Your task to perform on an android device: Clear the cart on bestbuy.com. Search for panasonic triple a on bestbuy.com, select the first entry, add it to the cart, then select checkout. Image 0: 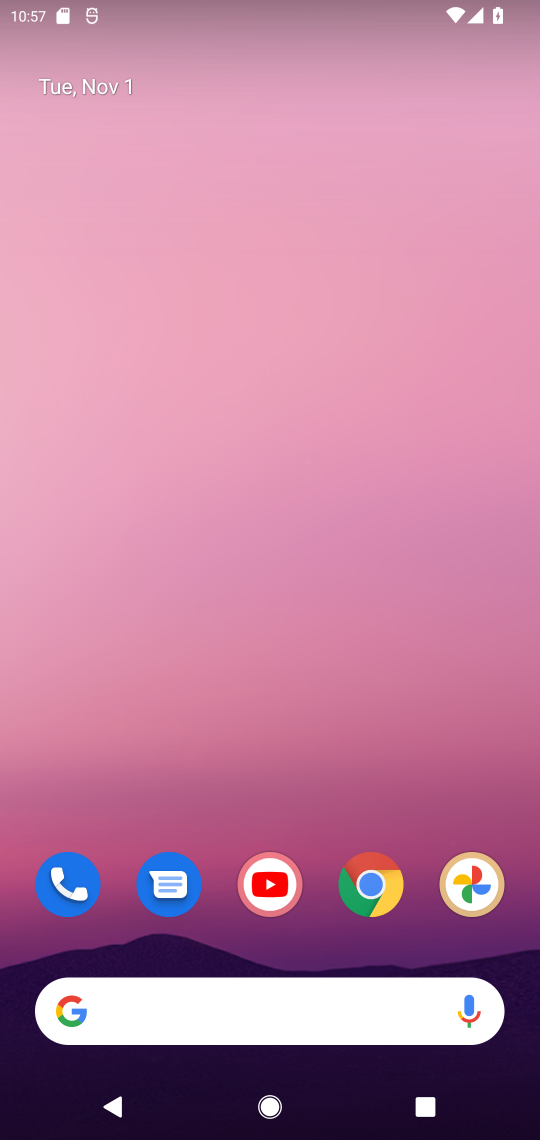
Step 0: click (388, 877)
Your task to perform on an android device: Clear the cart on bestbuy.com. Search for panasonic triple a on bestbuy.com, select the first entry, add it to the cart, then select checkout. Image 1: 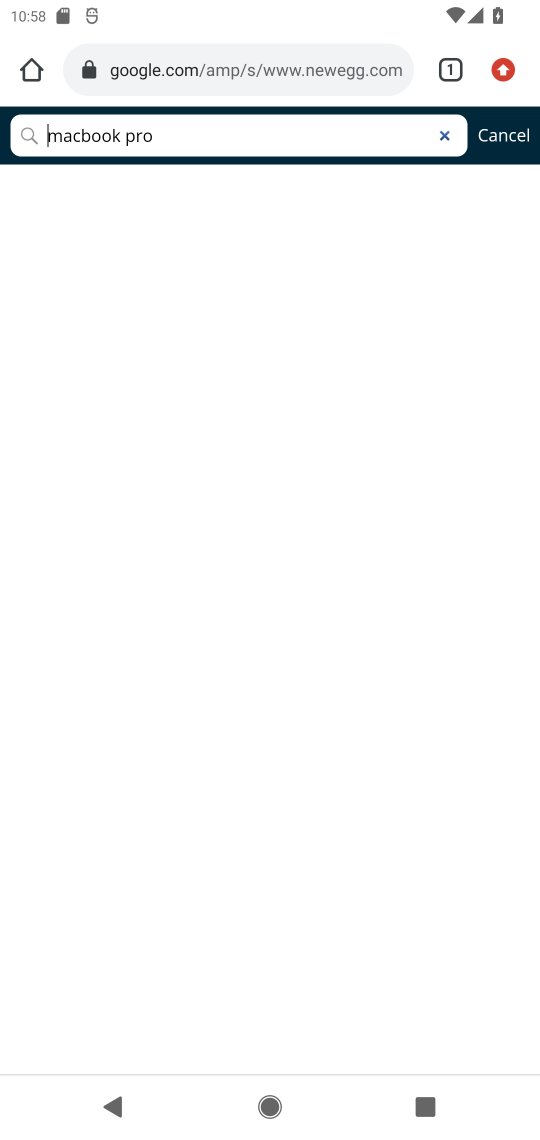
Step 1: click (175, 79)
Your task to perform on an android device: Clear the cart on bestbuy.com. Search for panasonic triple a on bestbuy.com, select the first entry, add it to the cart, then select checkout. Image 2: 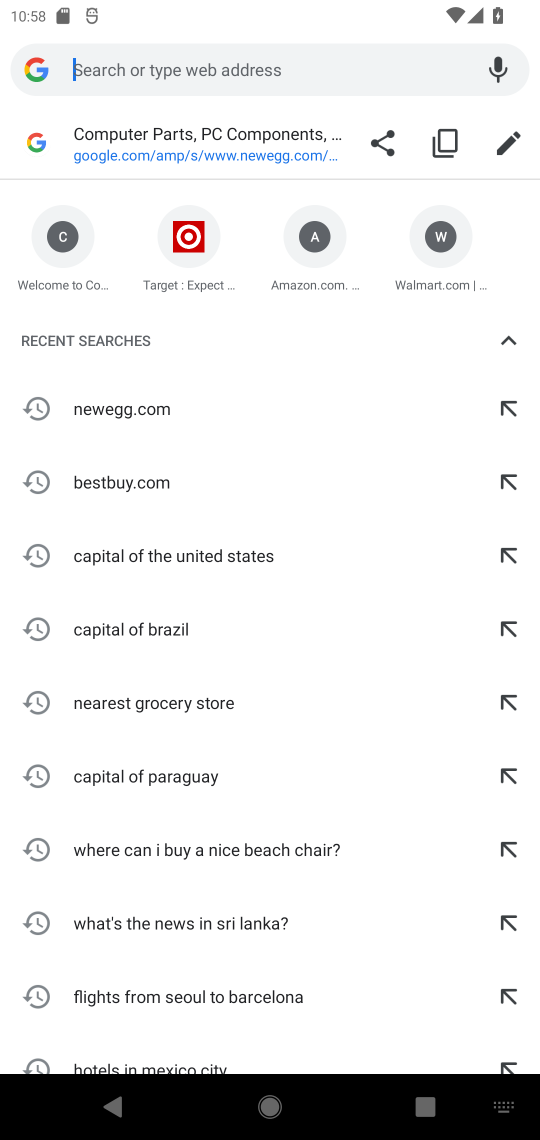
Step 2: type "bestbuy.com"
Your task to perform on an android device: Clear the cart on bestbuy.com. Search for panasonic triple a on bestbuy.com, select the first entry, add it to the cart, then select checkout. Image 3: 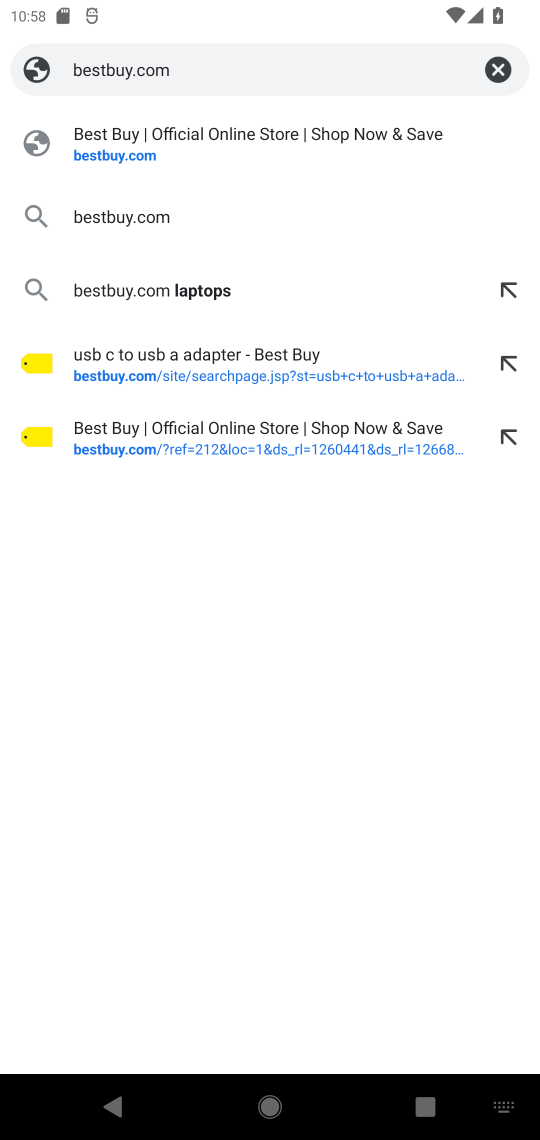
Step 3: click (94, 164)
Your task to perform on an android device: Clear the cart on bestbuy.com. Search for panasonic triple a on bestbuy.com, select the first entry, add it to the cart, then select checkout. Image 4: 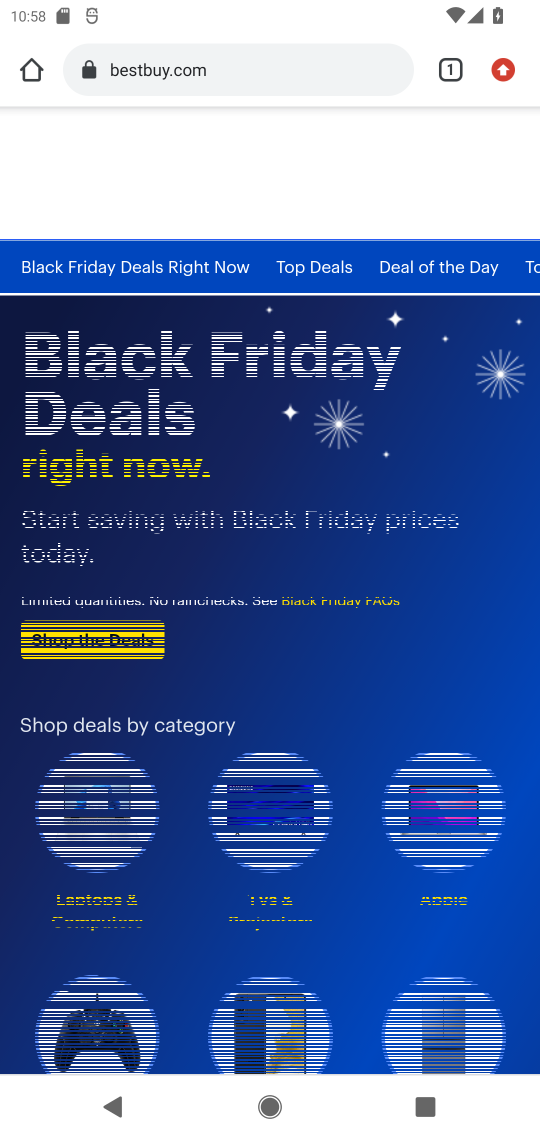
Step 4: drag from (294, 431) to (320, 251)
Your task to perform on an android device: Clear the cart on bestbuy.com. Search for panasonic triple a on bestbuy.com, select the first entry, add it to the cart, then select checkout. Image 5: 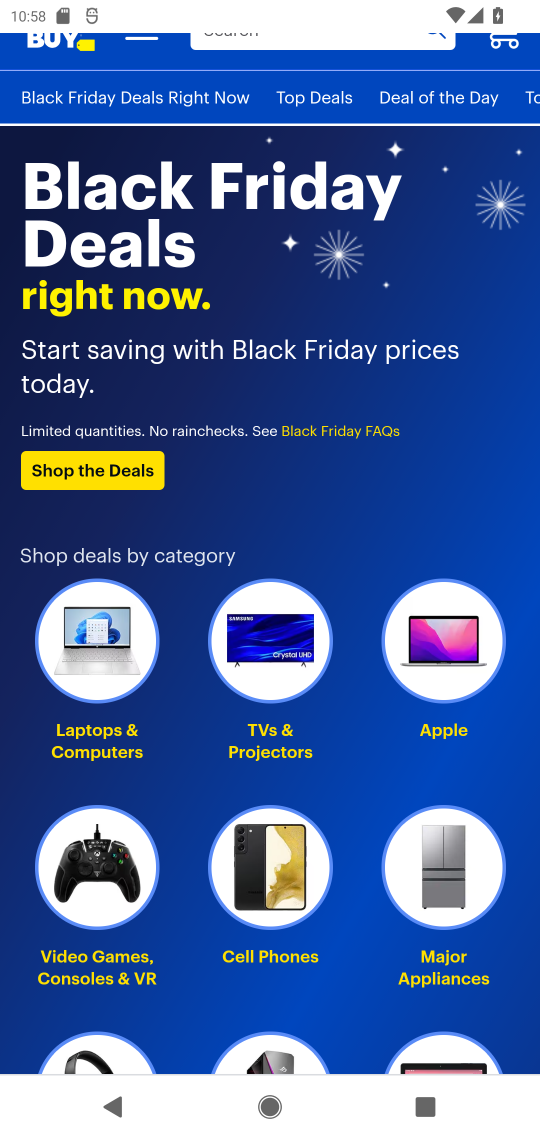
Step 5: drag from (285, 202) to (279, 327)
Your task to perform on an android device: Clear the cart on bestbuy.com. Search for panasonic triple a on bestbuy.com, select the first entry, add it to the cart, then select checkout. Image 6: 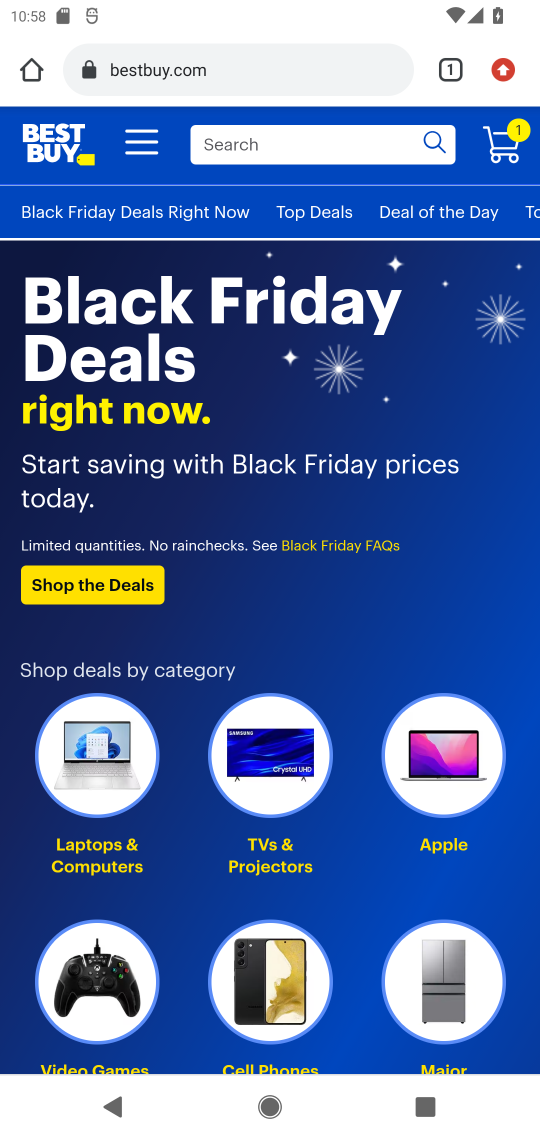
Step 6: click (275, 142)
Your task to perform on an android device: Clear the cart on bestbuy.com. Search for panasonic triple a on bestbuy.com, select the first entry, add it to the cart, then select checkout. Image 7: 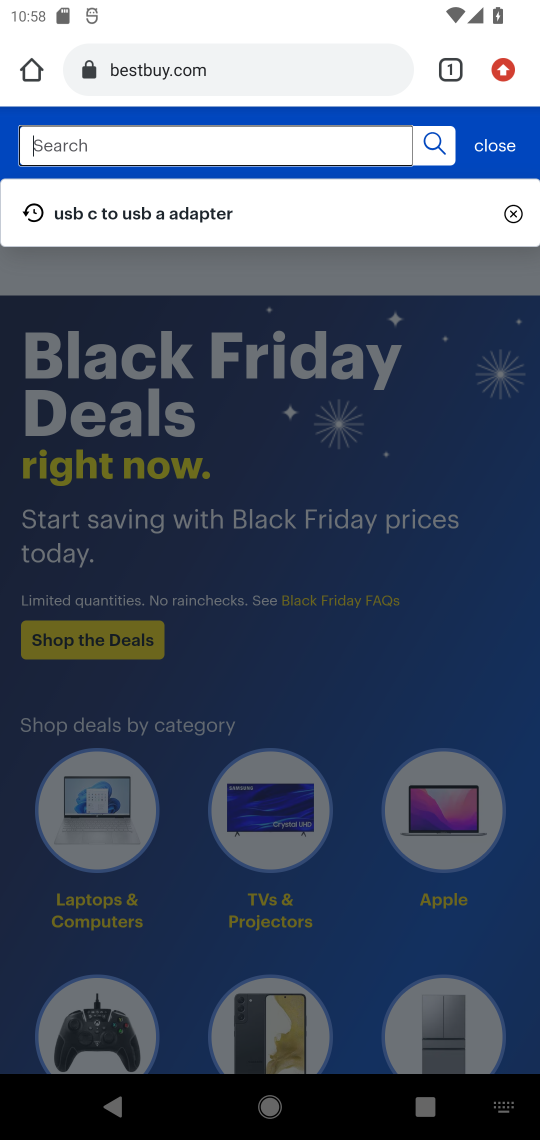
Step 7: click (507, 160)
Your task to perform on an android device: Clear the cart on bestbuy.com. Search for panasonic triple a on bestbuy.com, select the first entry, add it to the cart, then select checkout. Image 8: 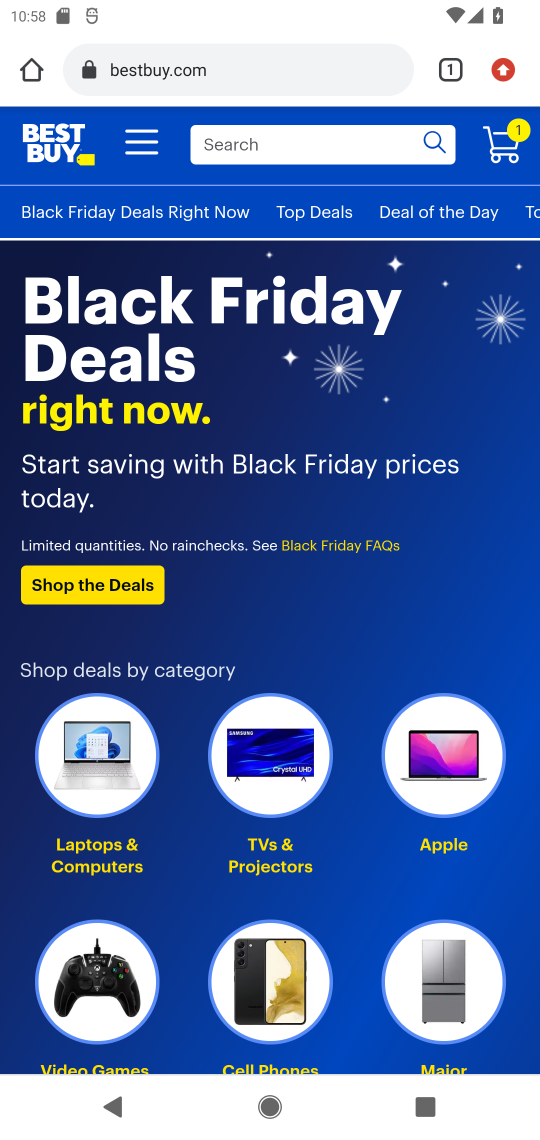
Step 8: click (502, 144)
Your task to perform on an android device: Clear the cart on bestbuy.com. Search for panasonic triple a on bestbuy.com, select the first entry, add it to the cart, then select checkout. Image 9: 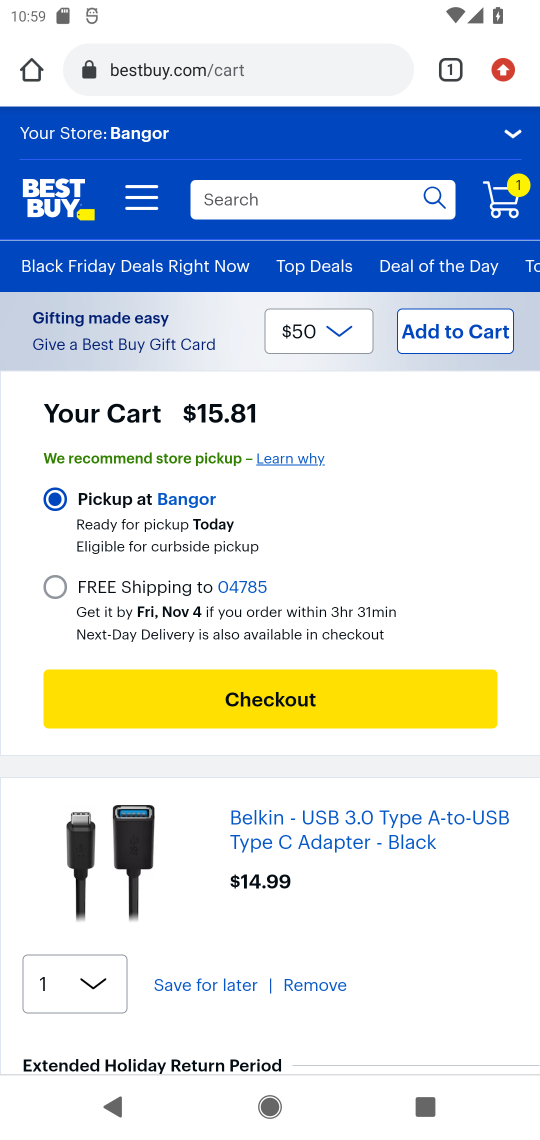
Step 9: click (308, 994)
Your task to perform on an android device: Clear the cart on bestbuy.com. Search for panasonic triple a on bestbuy.com, select the first entry, add it to the cart, then select checkout. Image 10: 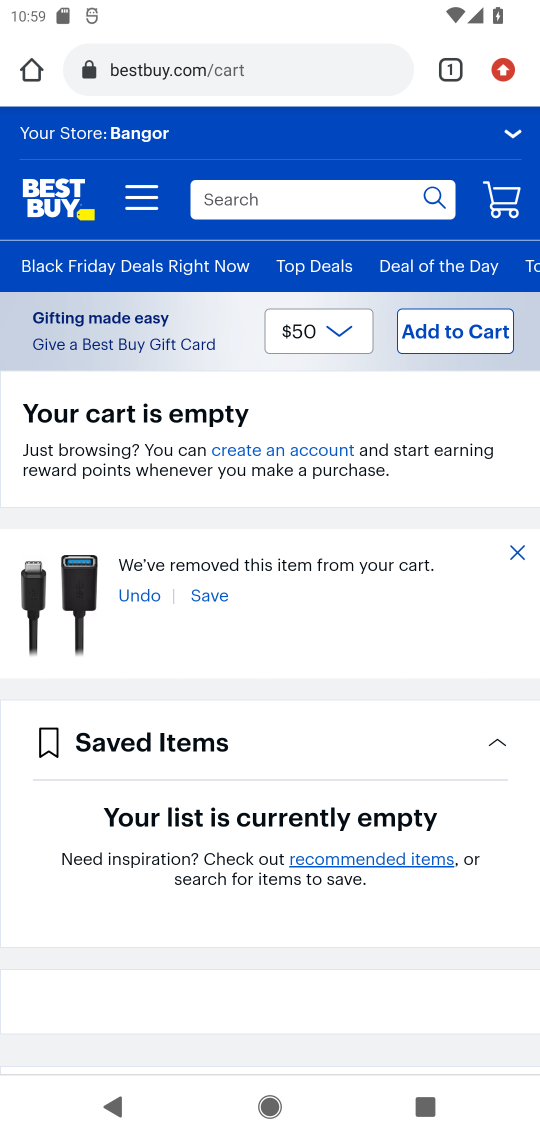
Step 10: click (305, 202)
Your task to perform on an android device: Clear the cart on bestbuy.com. Search for panasonic triple a on bestbuy.com, select the first entry, add it to the cart, then select checkout. Image 11: 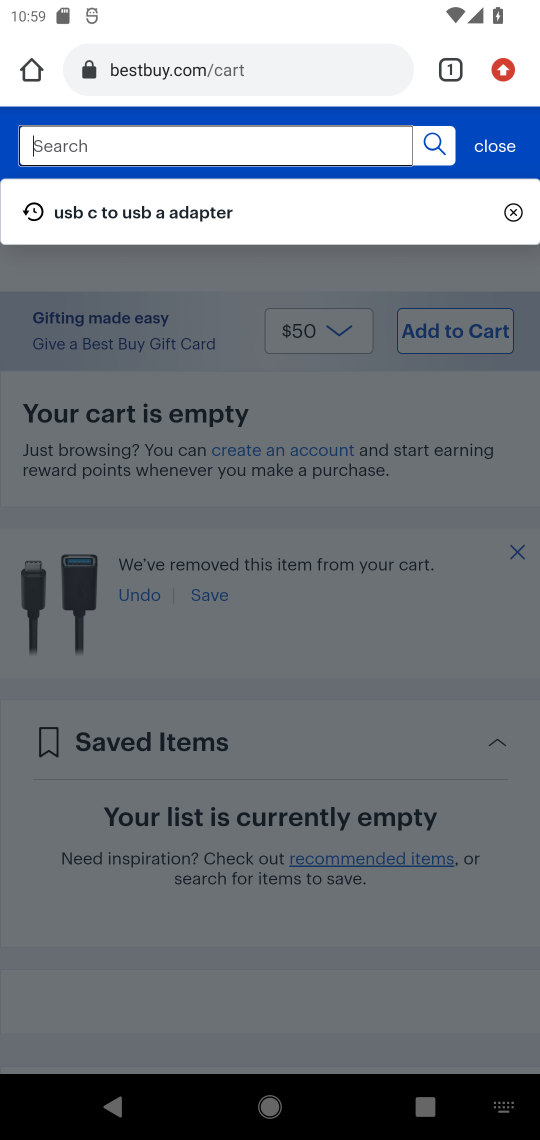
Step 11: type "panasonic triple a"
Your task to perform on an android device: Clear the cart on bestbuy.com. Search for panasonic triple a on bestbuy.com, select the first entry, add it to the cart, then select checkout. Image 12: 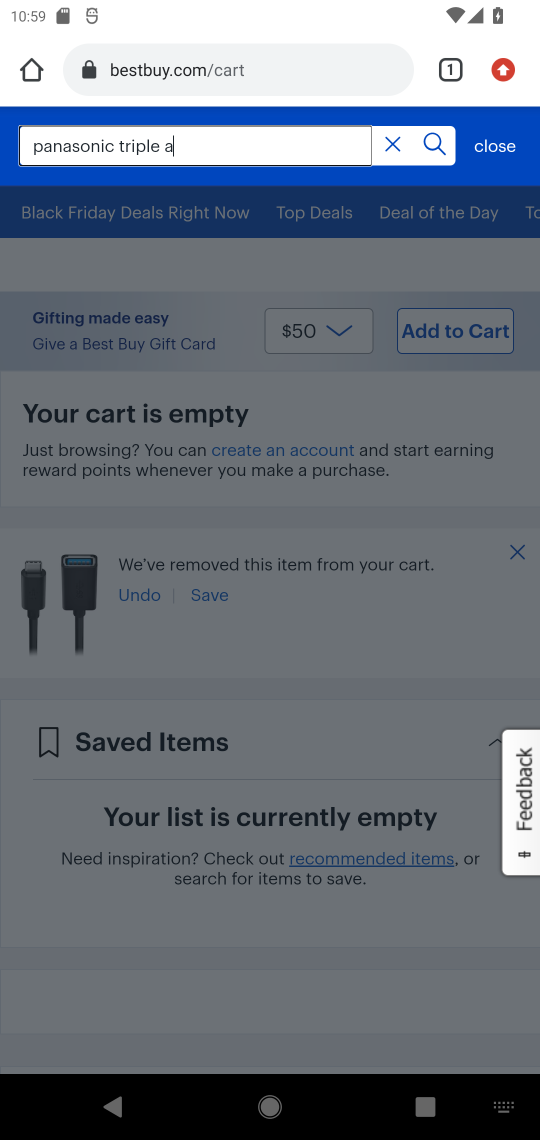
Step 12: click (426, 149)
Your task to perform on an android device: Clear the cart on bestbuy.com. Search for panasonic triple a on bestbuy.com, select the first entry, add it to the cart, then select checkout. Image 13: 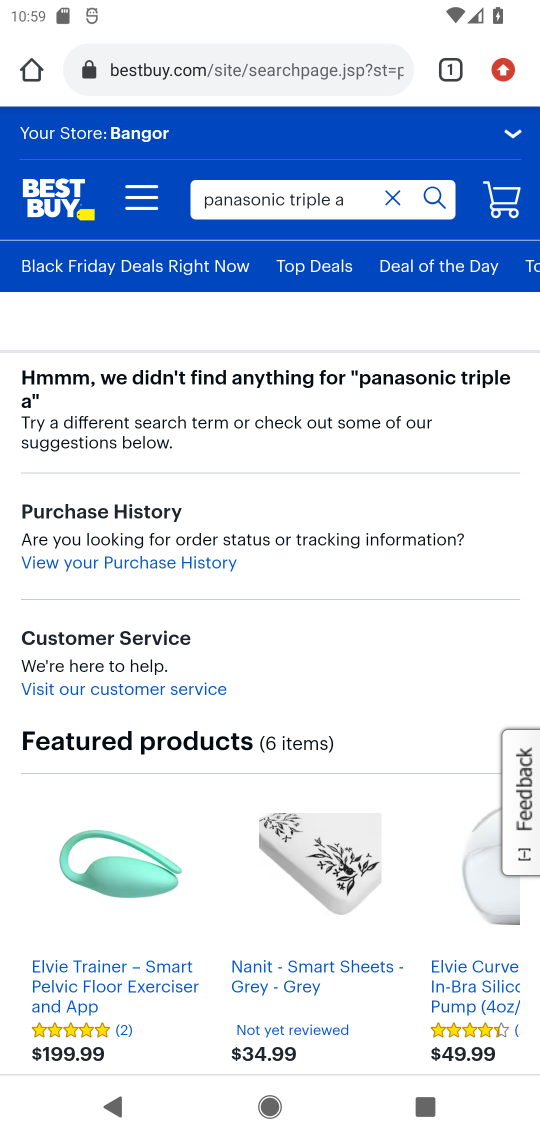
Step 13: task complete